Your task to perform on an android device: Open Google Chrome Image 0: 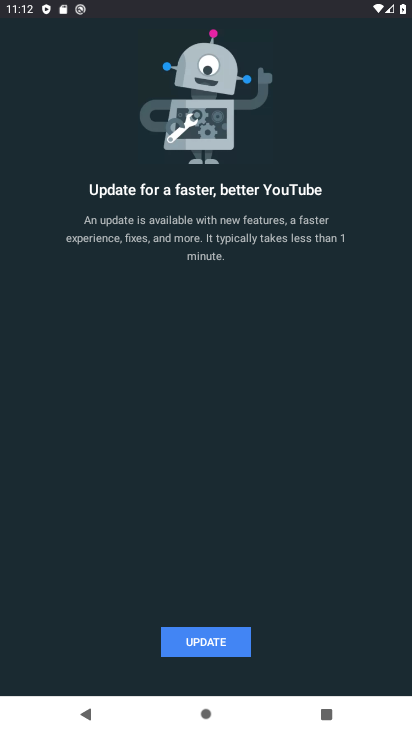
Step 0: press home button
Your task to perform on an android device: Open Google Chrome Image 1: 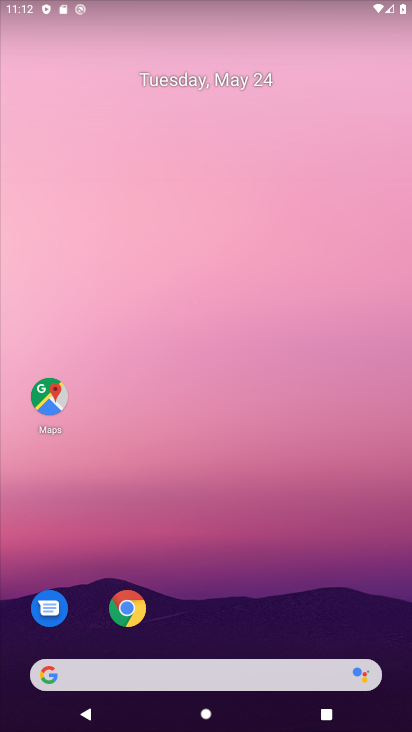
Step 1: click (120, 610)
Your task to perform on an android device: Open Google Chrome Image 2: 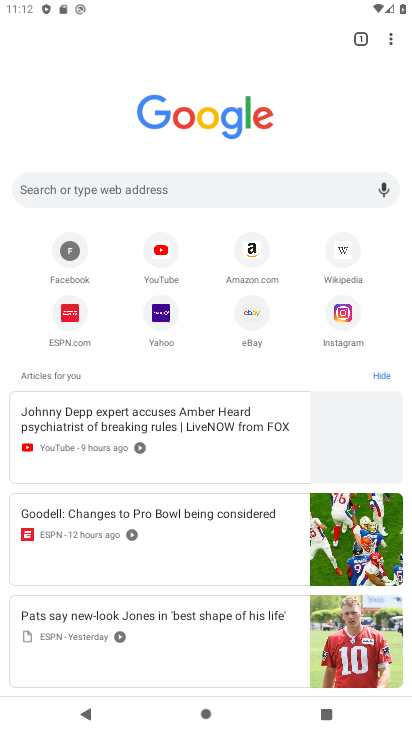
Step 2: task complete